Your task to perform on an android device: Open the calendar app, open the side menu, and click the "Day" option Image 0: 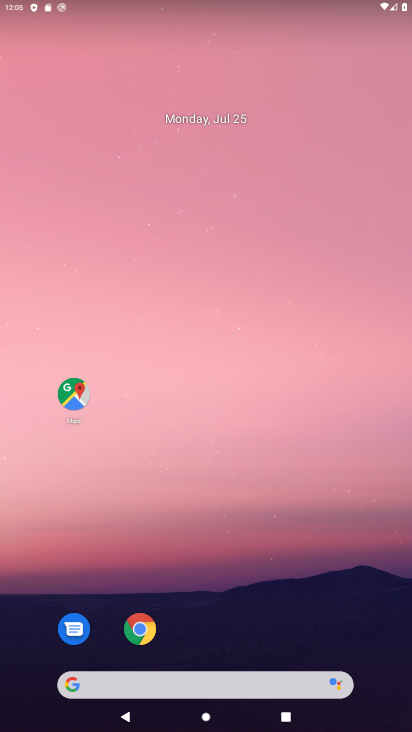
Step 0: drag from (226, 661) to (189, 76)
Your task to perform on an android device: Open the calendar app, open the side menu, and click the "Day" option Image 1: 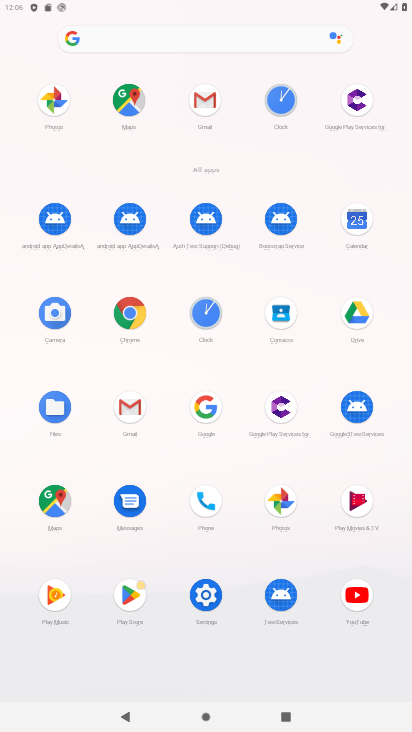
Step 1: click (359, 222)
Your task to perform on an android device: Open the calendar app, open the side menu, and click the "Day" option Image 2: 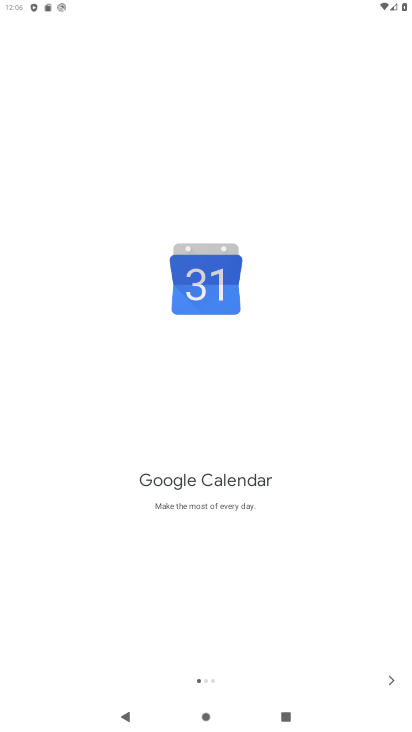
Step 2: click (385, 689)
Your task to perform on an android device: Open the calendar app, open the side menu, and click the "Day" option Image 3: 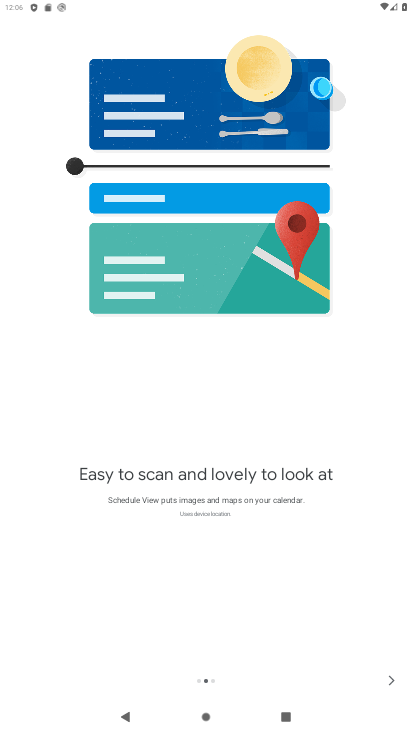
Step 3: click (385, 689)
Your task to perform on an android device: Open the calendar app, open the side menu, and click the "Day" option Image 4: 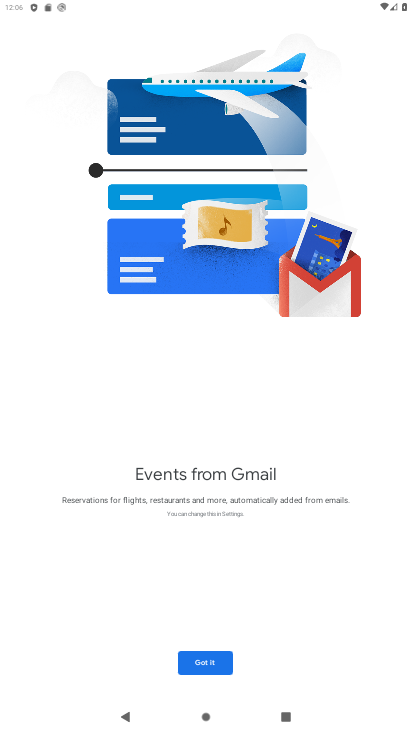
Step 4: click (216, 666)
Your task to perform on an android device: Open the calendar app, open the side menu, and click the "Day" option Image 5: 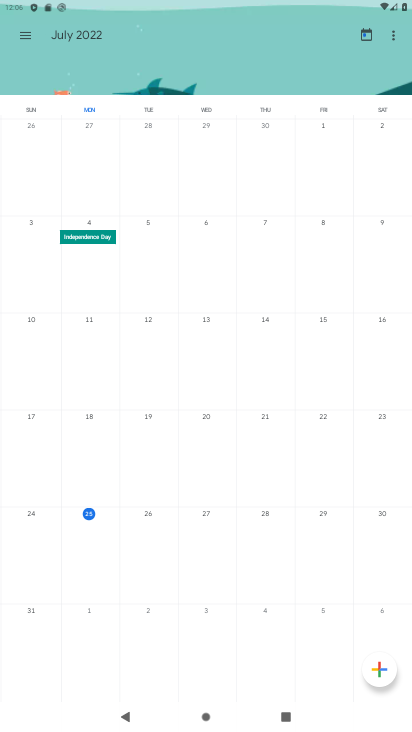
Step 5: click (29, 43)
Your task to perform on an android device: Open the calendar app, open the side menu, and click the "Day" option Image 6: 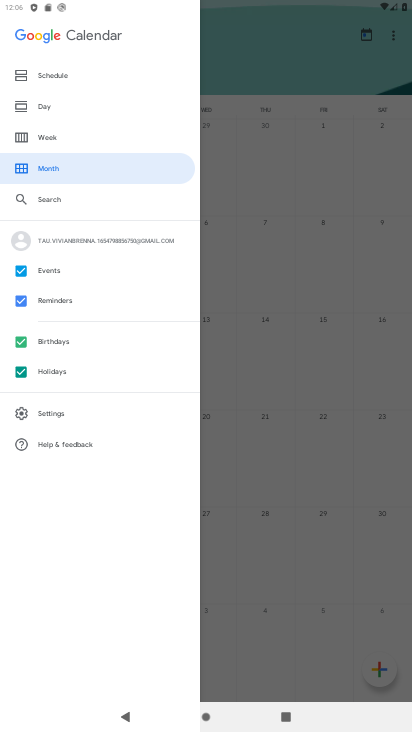
Step 6: click (75, 109)
Your task to perform on an android device: Open the calendar app, open the side menu, and click the "Day" option Image 7: 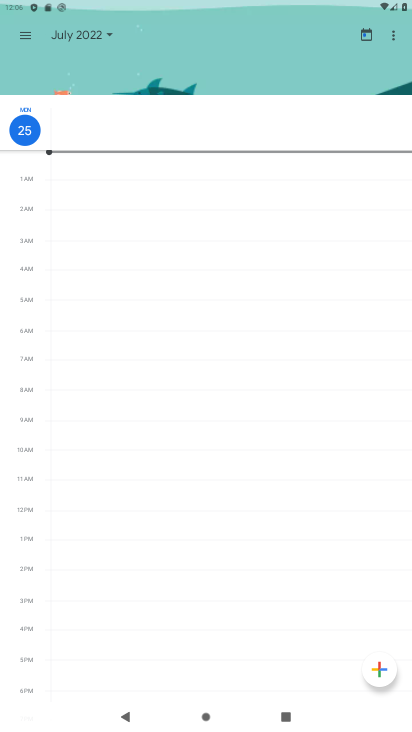
Step 7: task complete